Your task to perform on an android device: Turn off the flashlight Image 0: 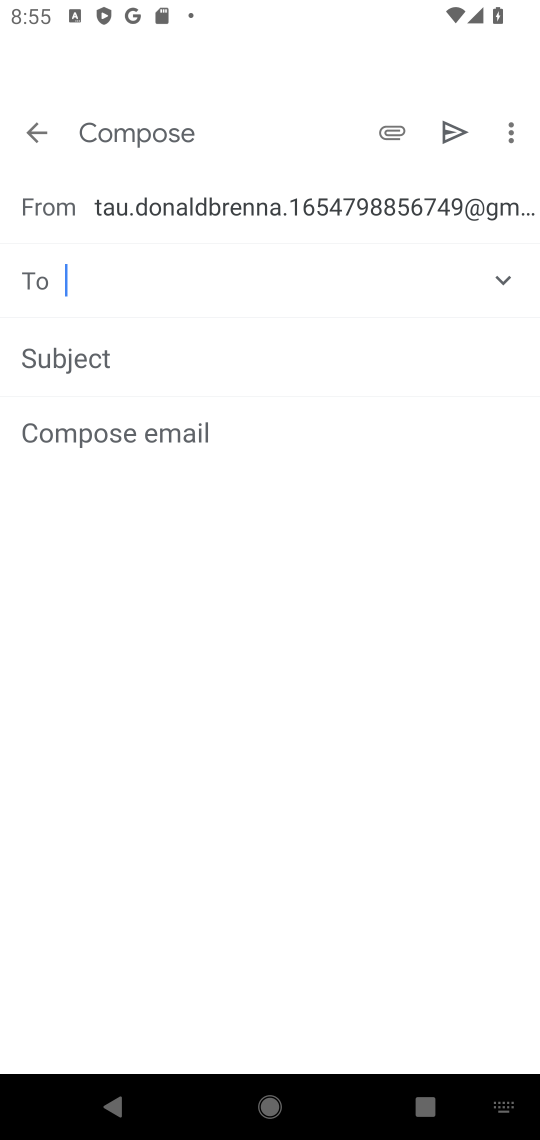
Step 0: press home button
Your task to perform on an android device: Turn off the flashlight Image 1: 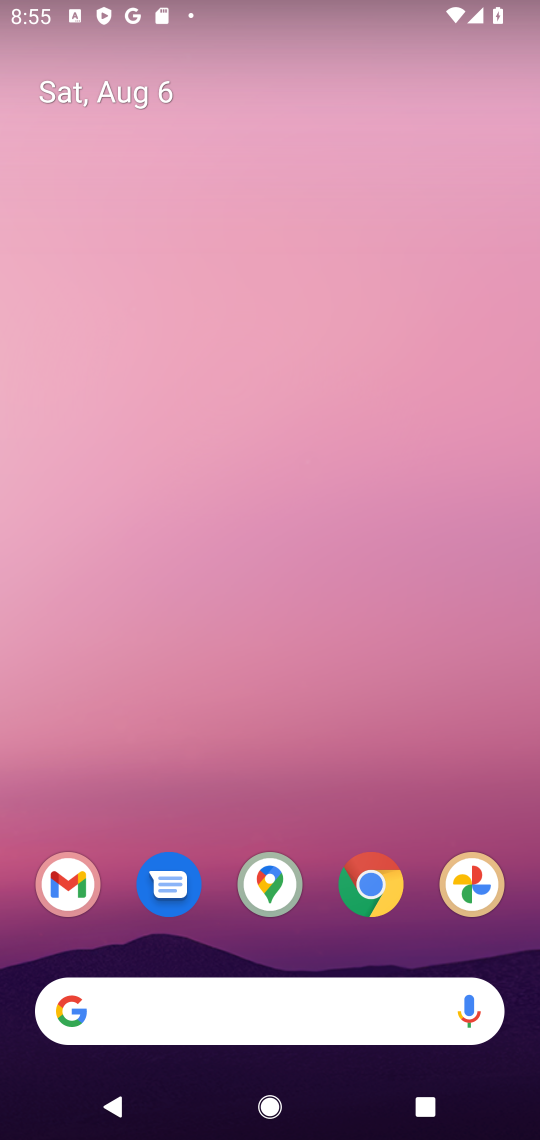
Step 1: task complete